Your task to perform on an android device: toggle airplane mode Image 0: 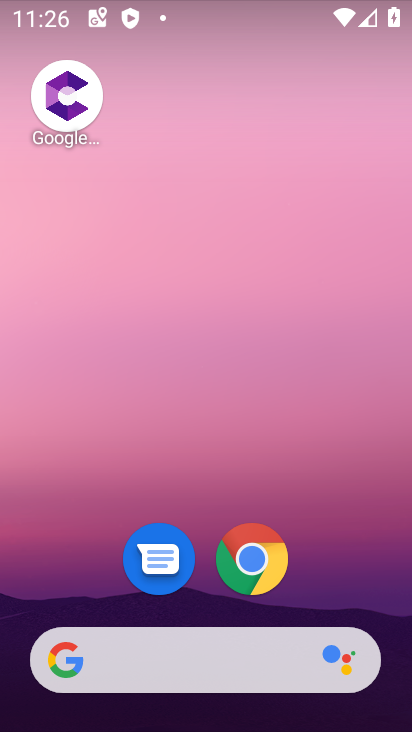
Step 0: drag from (353, 528) to (292, 71)
Your task to perform on an android device: toggle airplane mode Image 1: 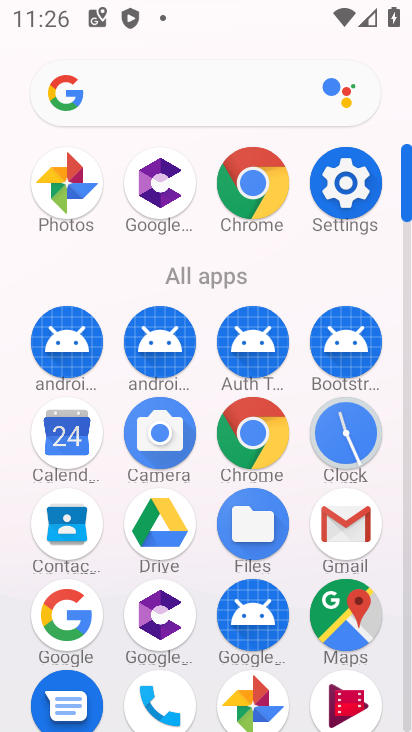
Step 1: click (352, 189)
Your task to perform on an android device: toggle airplane mode Image 2: 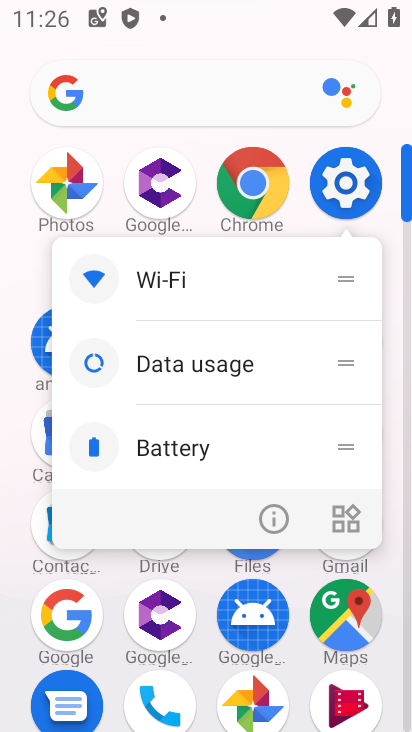
Step 2: click (354, 186)
Your task to perform on an android device: toggle airplane mode Image 3: 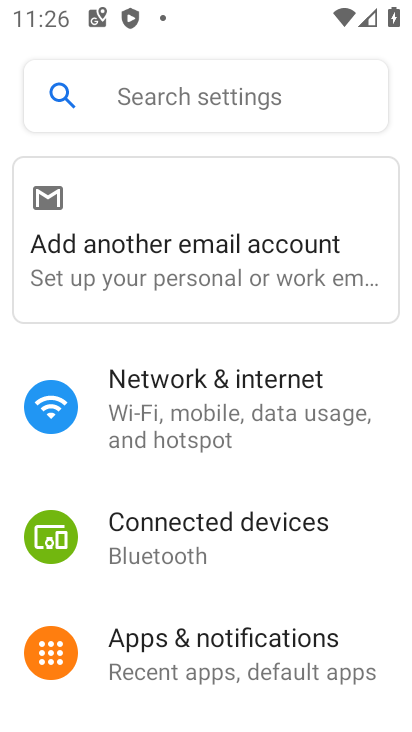
Step 3: click (168, 414)
Your task to perform on an android device: toggle airplane mode Image 4: 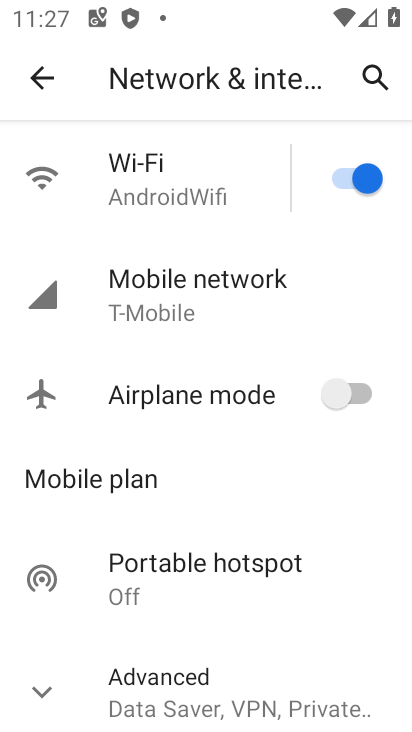
Step 4: click (333, 389)
Your task to perform on an android device: toggle airplane mode Image 5: 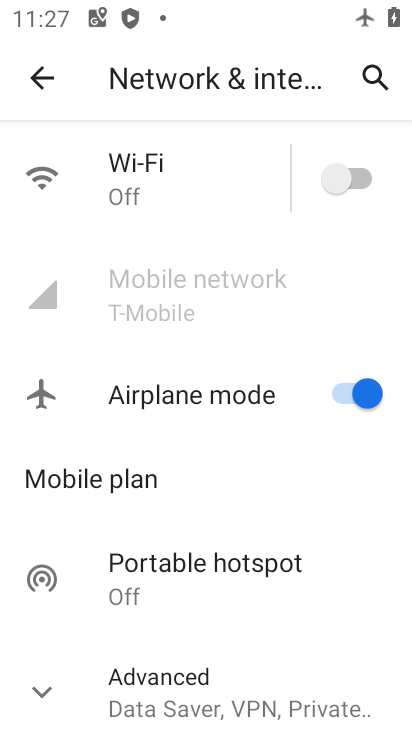
Step 5: task complete